Your task to perform on an android device: Open Google Chrome Image 0: 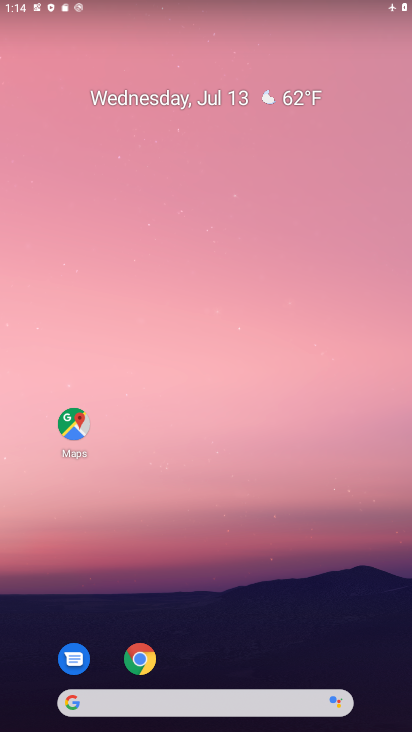
Step 0: drag from (224, 727) to (231, 151)
Your task to perform on an android device: Open Google Chrome Image 1: 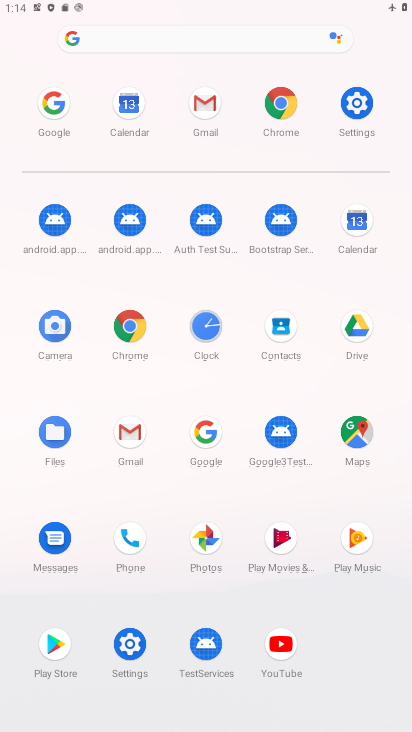
Step 1: click (131, 326)
Your task to perform on an android device: Open Google Chrome Image 2: 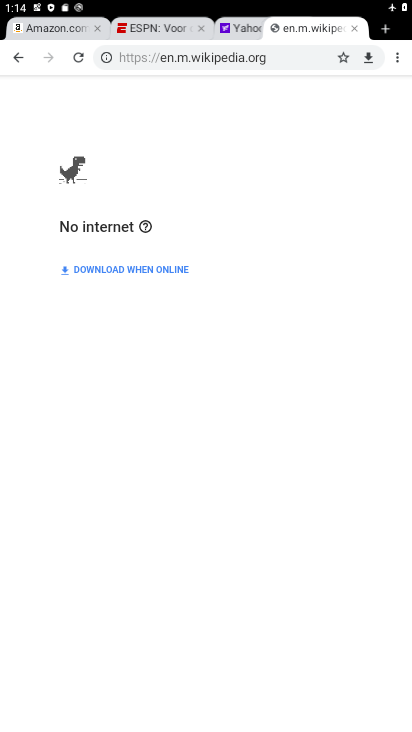
Step 2: task complete